Your task to perform on an android device: turn off improve location accuracy Image 0: 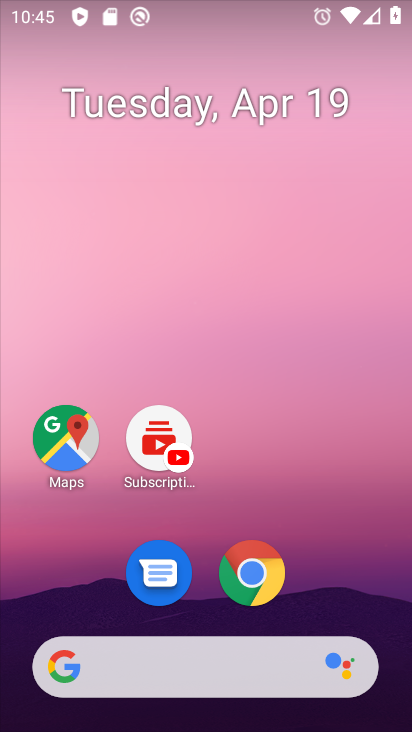
Step 0: click (47, 78)
Your task to perform on an android device: turn off improve location accuracy Image 1: 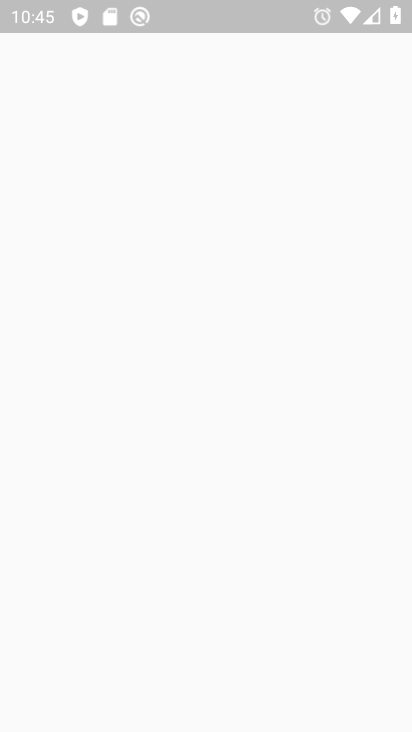
Step 1: press home button
Your task to perform on an android device: turn off improve location accuracy Image 2: 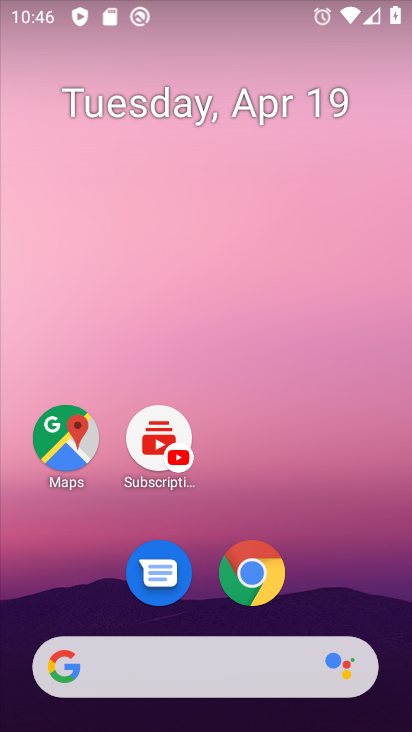
Step 2: drag from (311, 578) to (97, 177)
Your task to perform on an android device: turn off improve location accuracy Image 3: 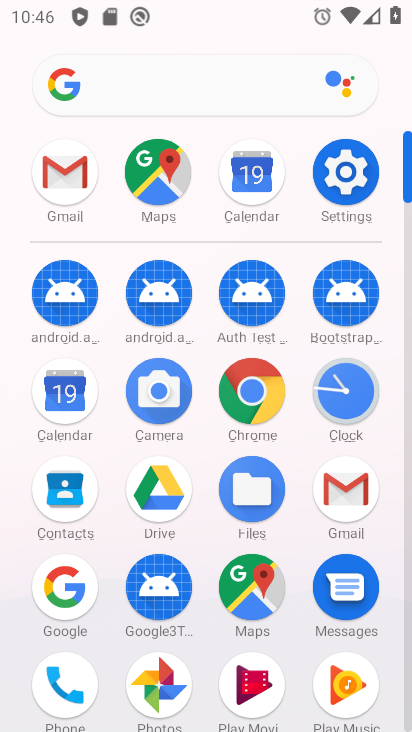
Step 3: click (343, 171)
Your task to perform on an android device: turn off improve location accuracy Image 4: 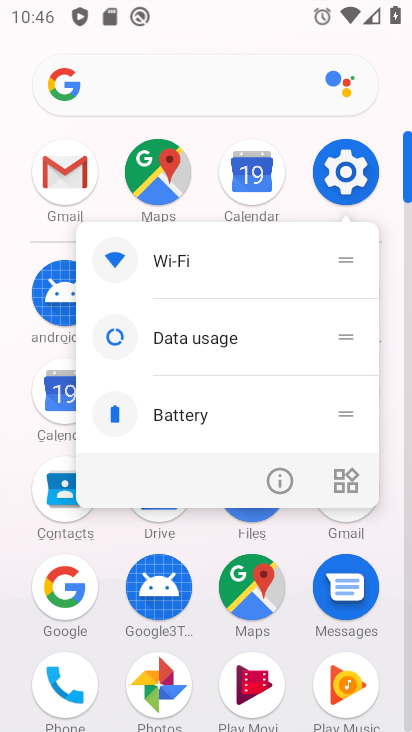
Step 4: click (345, 173)
Your task to perform on an android device: turn off improve location accuracy Image 5: 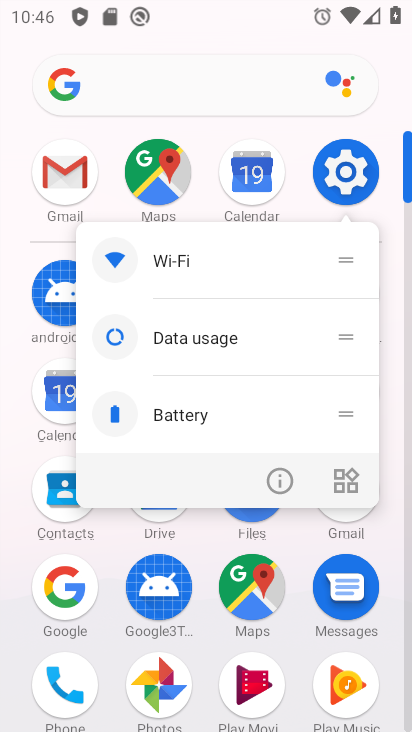
Step 5: click (345, 173)
Your task to perform on an android device: turn off improve location accuracy Image 6: 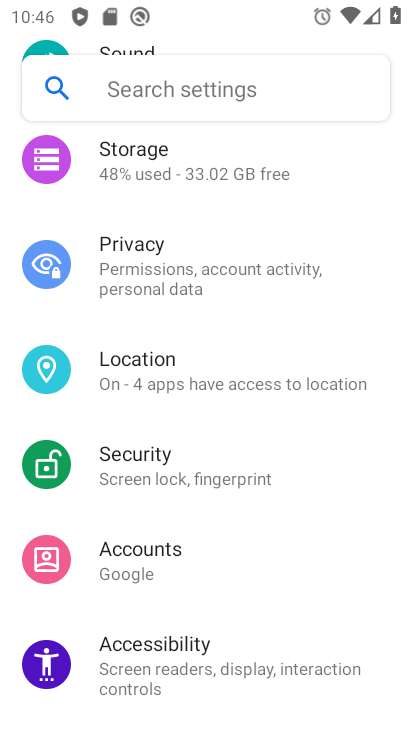
Step 6: click (142, 371)
Your task to perform on an android device: turn off improve location accuracy Image 7: 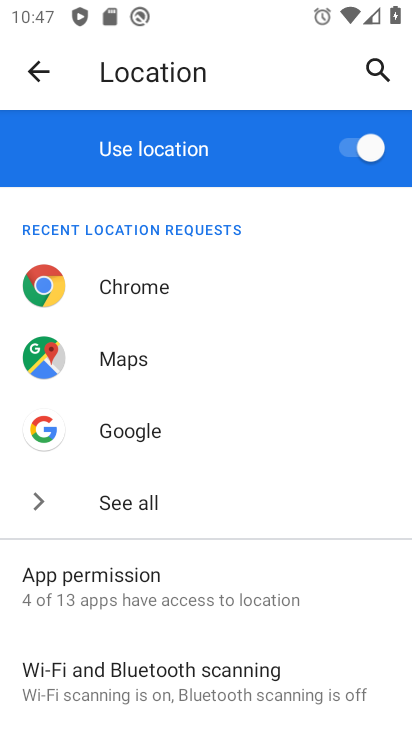
Step 7: drag from (183, 515) to (172, 195)
Your task to perform on an android device: turn off improve location accuracy Image 8: 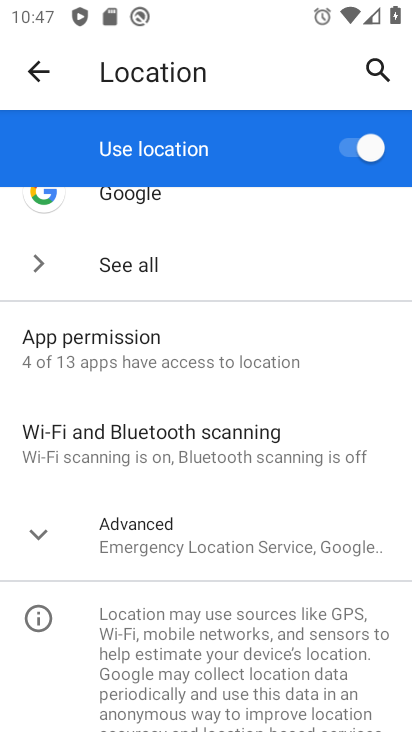
Step 8: click (229, 548)
Your task to perform on an android device: turn off improve location accuracy Image 9: 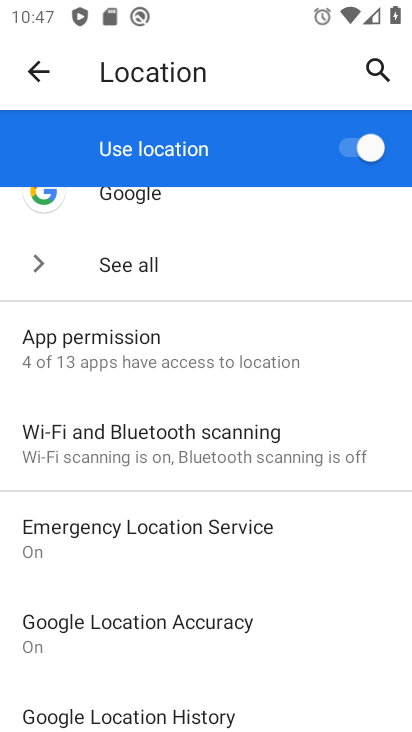
Step 9: click (187, 636)
Your task to perform on an android device: turn off improve location accuracy Image 10: 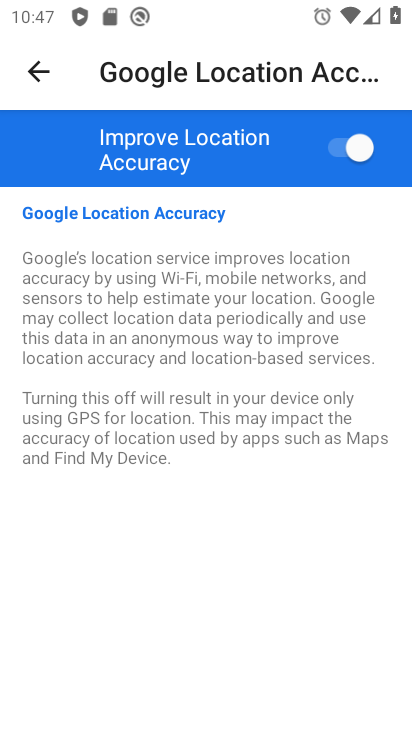
Step 10: click (350, 156)
Your task to perform on an android device: turn off improve location accuracy Image 11: 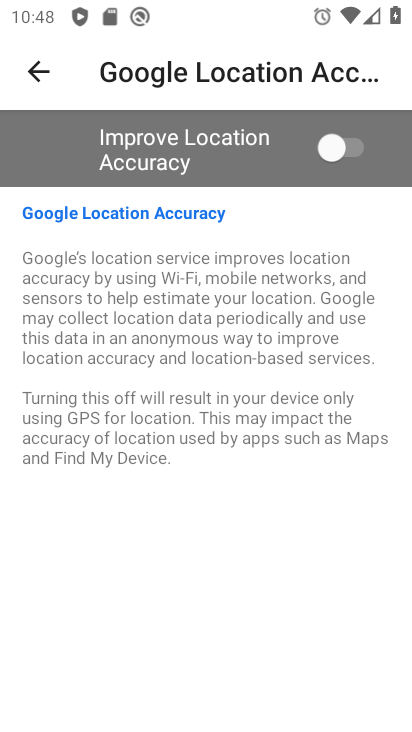
Step 11: task complete